Your task to perform on an android device: turn on priority inbox in the gmail app Image 0: 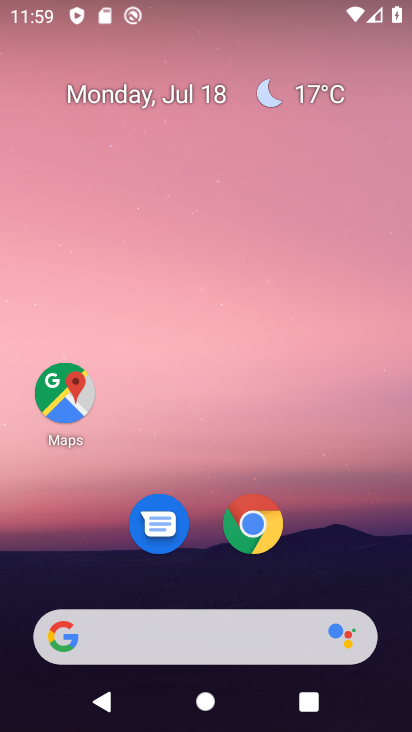
Step 0: drag from (197, 588) to (160, 41)
Your task to perform on an android device: turn on priority inbox in the gmail app Image 1: 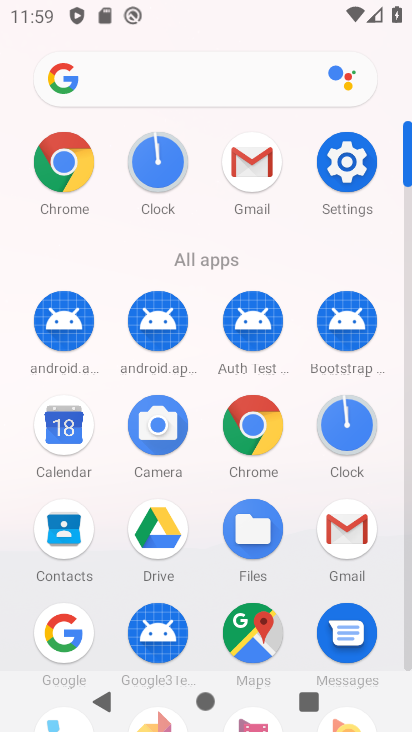
Step 1: click (362, 529)
Your task to perform on an android device: turn on priority inbox in the gmail app Image 2: 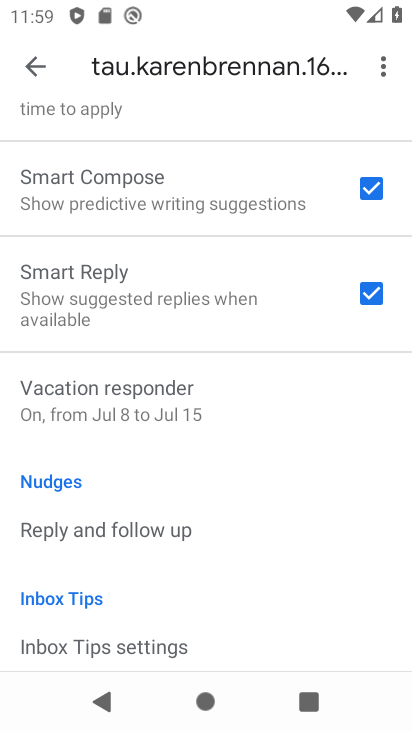
Step 2: drag from (188, 526) to (188, 145)
Your task to perform on an android device: turn on priority inbox in the gmail app Image 3: 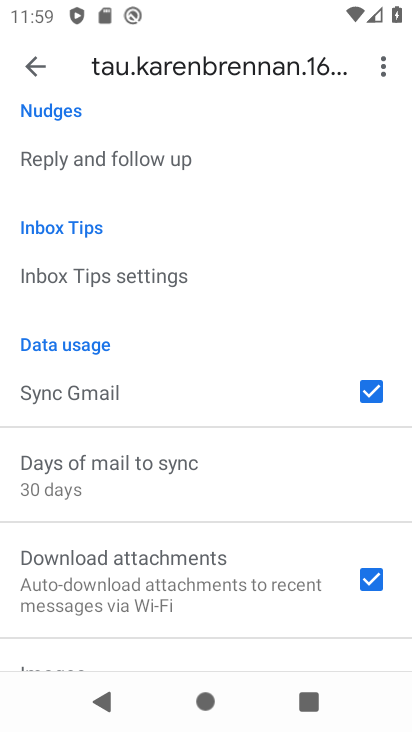
Step 3: drag from (193, 462) to (160, 722)
Your task to perform on an android device: turn on priority inbox in the gmail app Image 4: 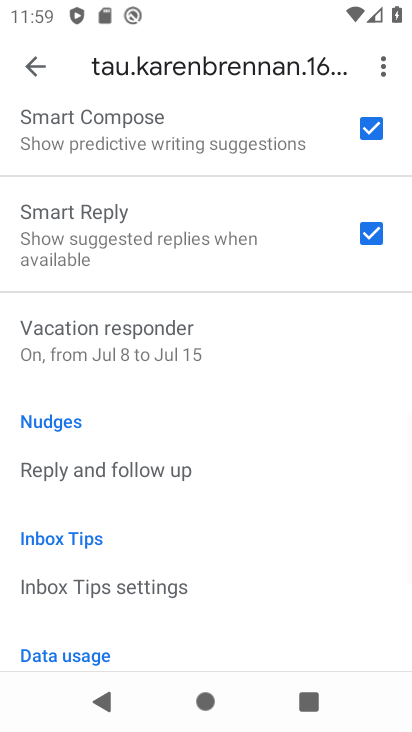
Step 4: drag from (123, 231) to (149, 665)
Your task to perform on an android device: turn on priority inbox in the gmail app Image 5: 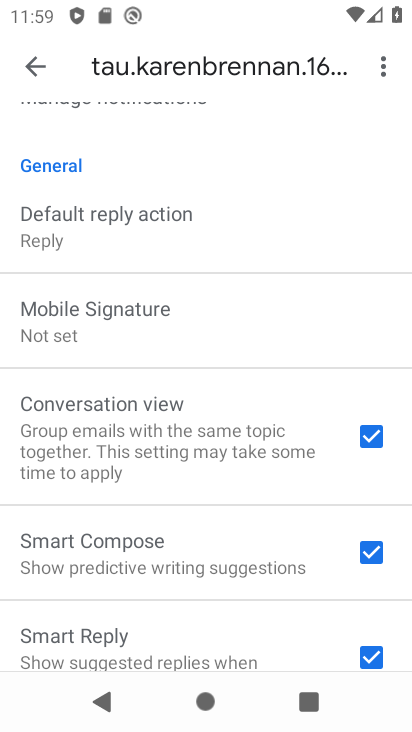
Step 5: drag from (105, 174) to (126, 678)
Your task to perform on an android device: turn on priority inbox in the gmail app Image 6: 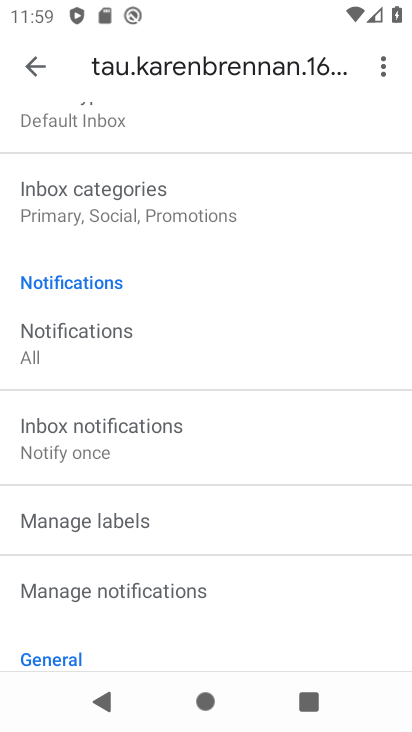
Step 6: drag from (81, 170) to (81, 545)
Your task to perform on an android device: turn on priority inbox in the gmail app Image 7: 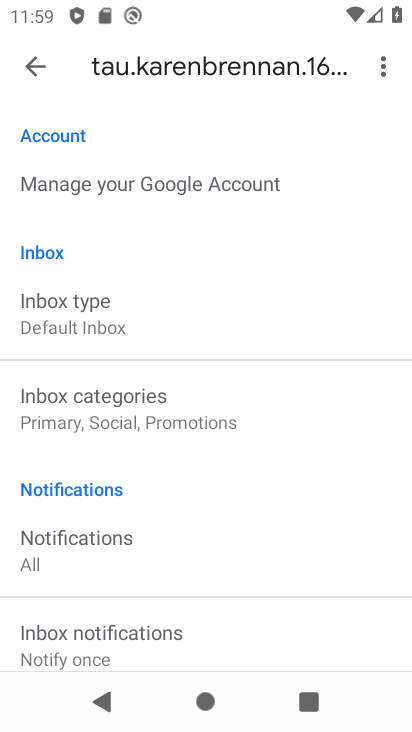
Step 7: click (56, 301)
Your task to perform on an android device: turn on priority inbox in the gmail app Image 8: 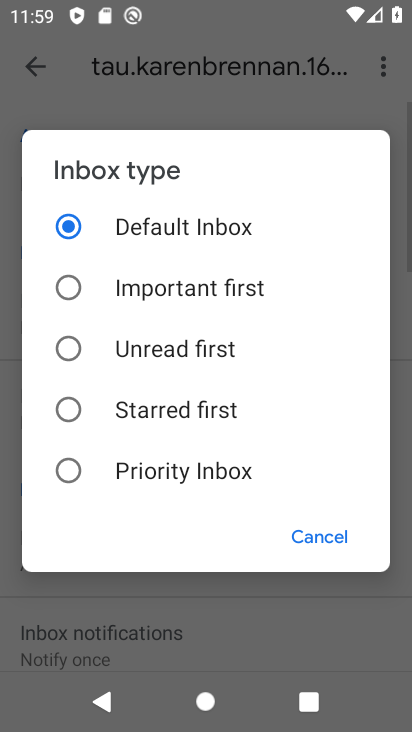
Step 8: click (133, 485)
Your task to perform on an android device: turn on priority inbox in the gmail app Image 9: 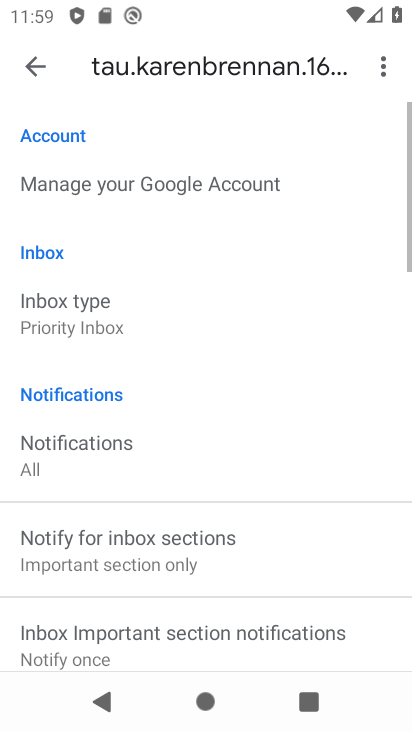
Step 9: task complete